Your task to perform on an android device: turn off priority inbox in the gmail app Image 0: 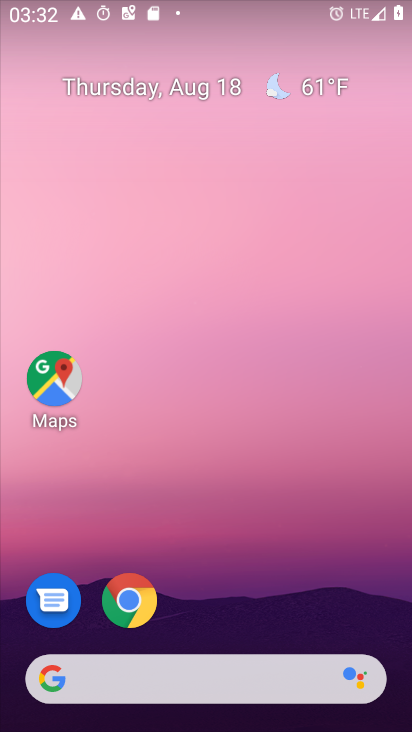
Step 0: press home button
Your task to perform on an android device: turn off priority inbox in the gmail app Image 1: 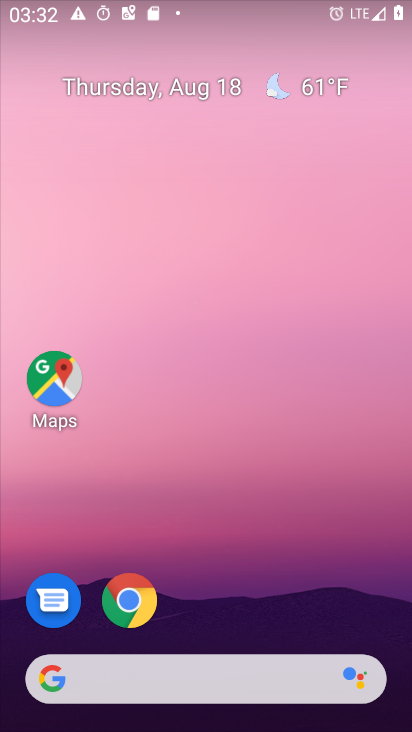
Step 1: drag from (268, 620) to (314, 0)
Your task to perform on an android device: turn off priority inbox in the gmail app Image 2: 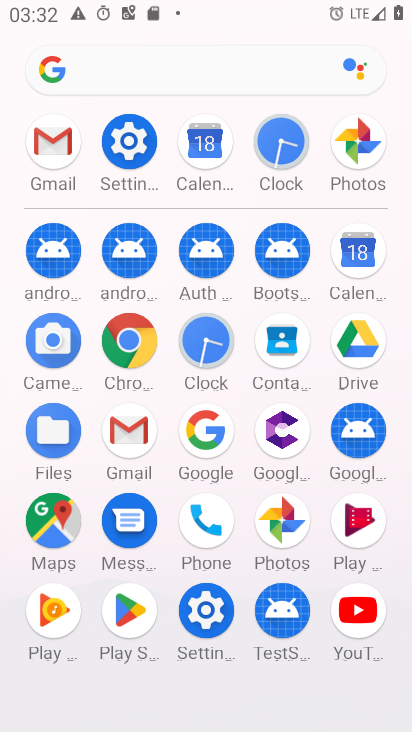
Step 2: click (58, 161)
Your task to perform on an android device: turn off priority inbox in the gmail app Image 3: 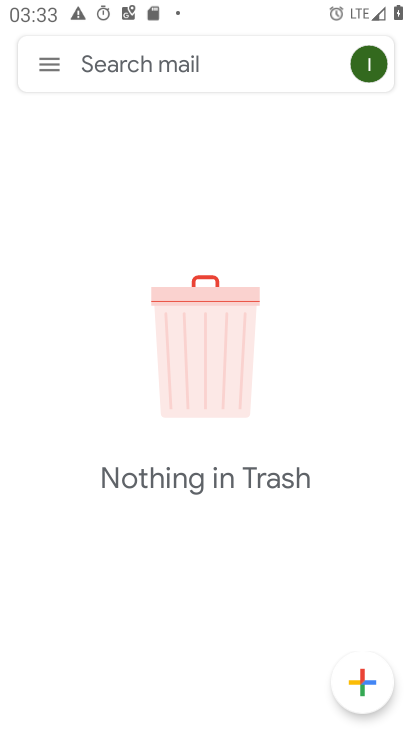
Step 3: click (37, 57)
Your task to perform on an android device: turn off priority inbox in the gmail app Image 4: 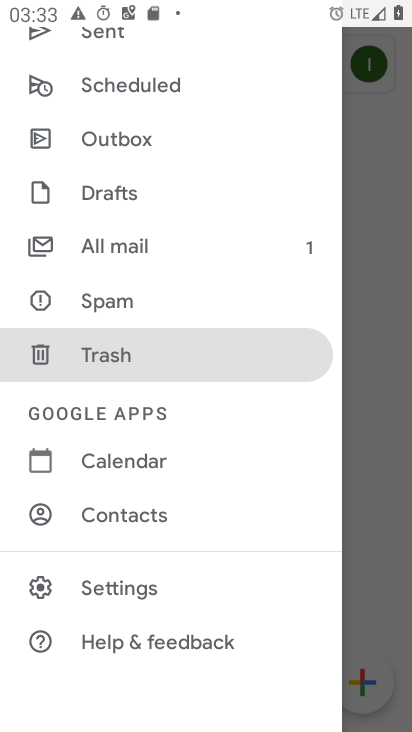
Step 4: click (135, 597)
Your task to perform on an android device: turn off priority inbox in the gmail app Image 5: 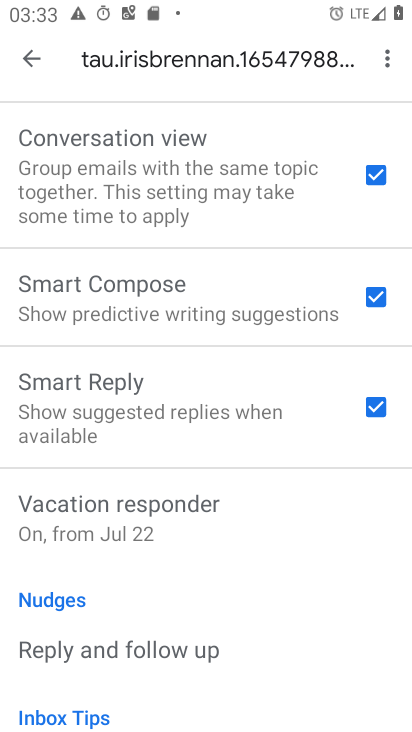
Step 5: drag from (253, 203) to (287, 726)
Your task to perform on an android device: turn off priority inbox in the gmail app Image 6: 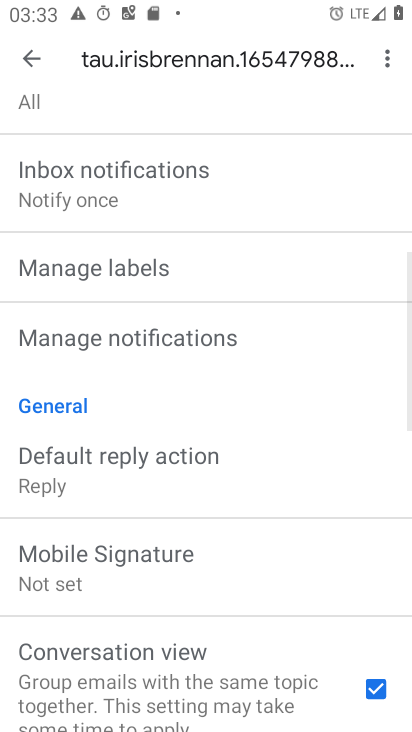
Step 6: drag from (174, 189) to (303, 730)
Your task to perform on an android device: turn off priority inbox in the gmail app Image 7: 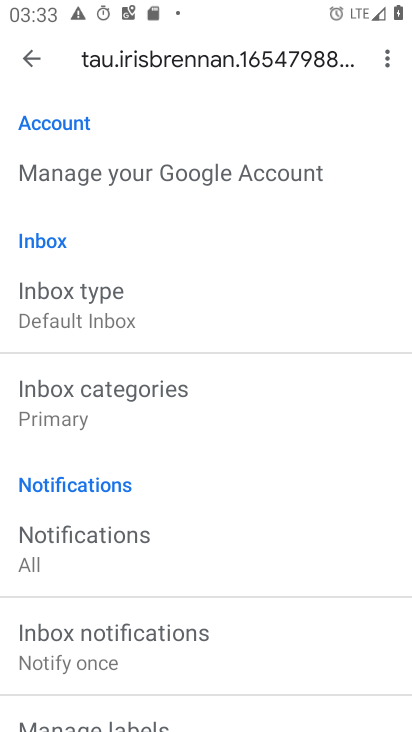
Step 7: click (83, 307)
Your task to perform on an android device: turn off priority inbox in the gmail app Image 8: 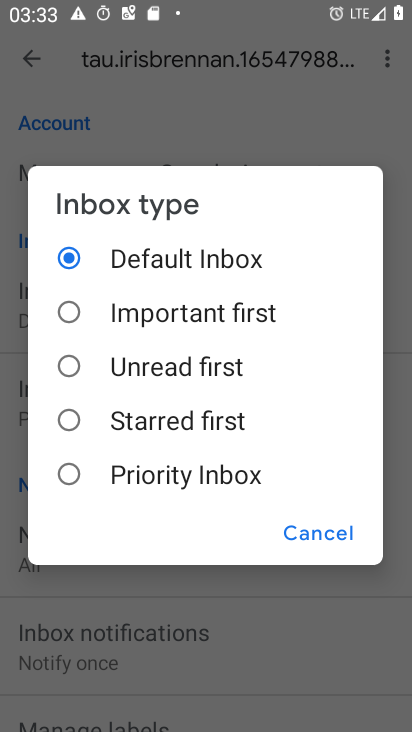
Step 8: task complete